Your task to perform on an android device: open app "Calculator" Image 0: 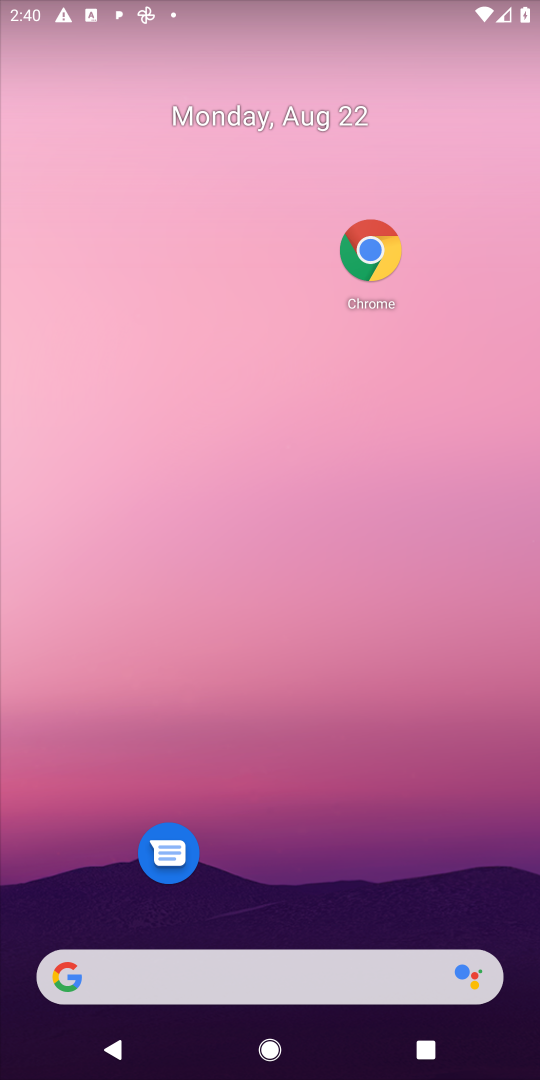
Step 0: drag from (311, 910) to (206, 138)
Your task to perform on an android device: open app "Calculator" Image 1: 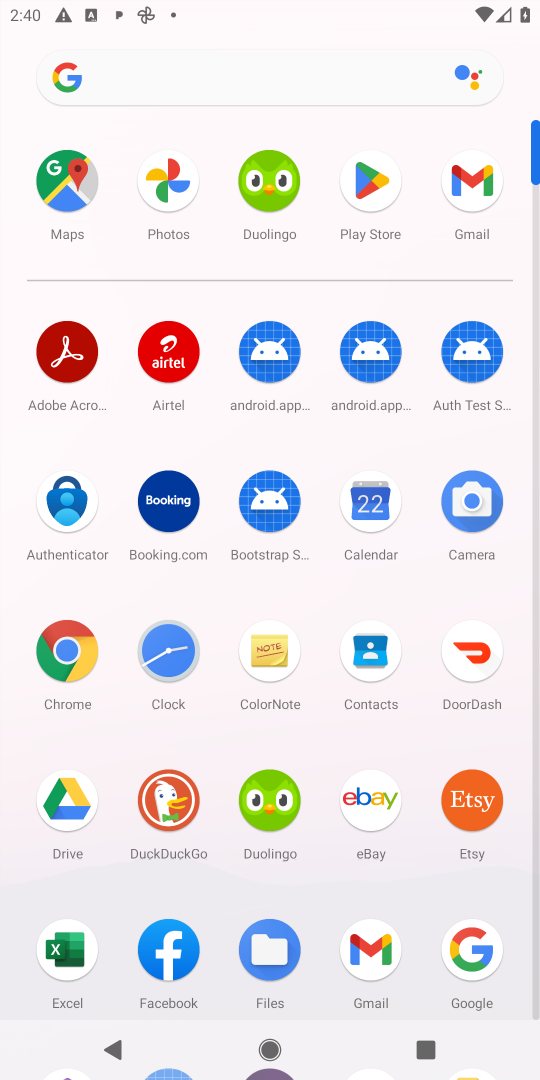
Step 1: click (352, 166)
Your task to perform on an android device: open app "Calculator" Image 2: 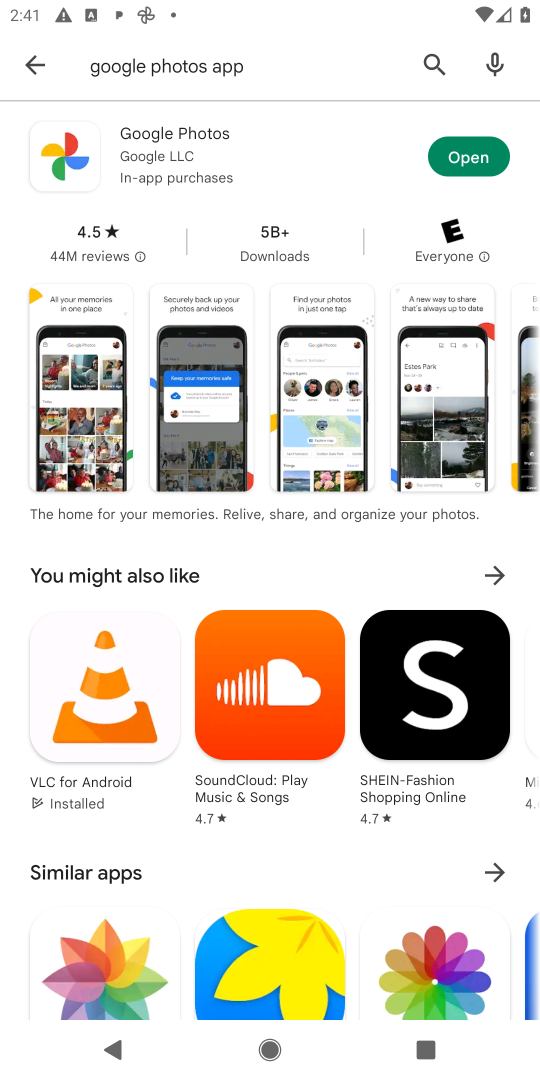
Step 2: click (41, 47)
Your task to perform on an android device: open app "Calculator" Image 3: 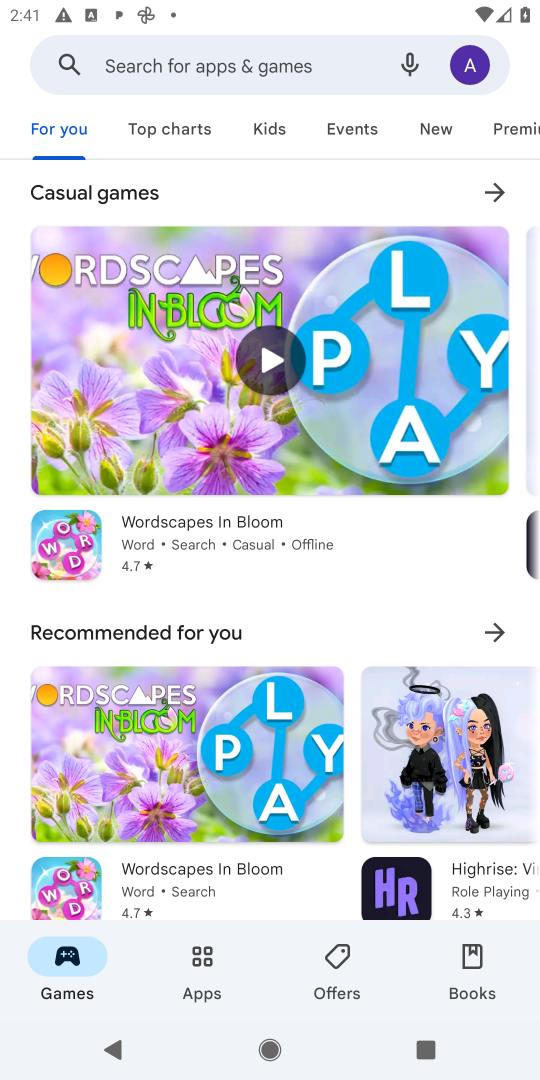
Step 3: click (218, 63)
Your task to perform on an android device: open app "Calculator" Image 4: 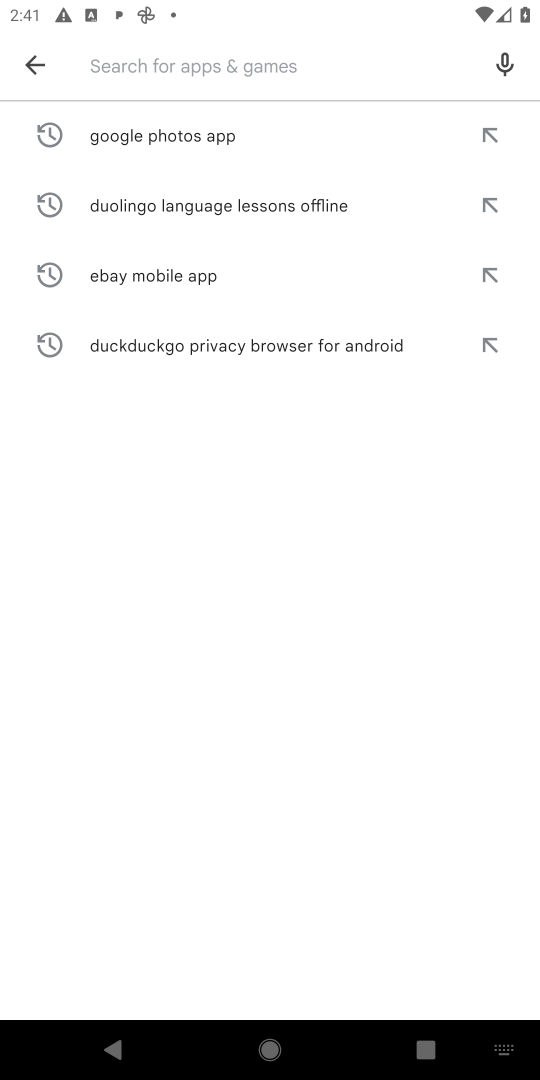
Step 4: type "Calculator "
Your task to perform on an android device: open app "Calculator" Image 5: 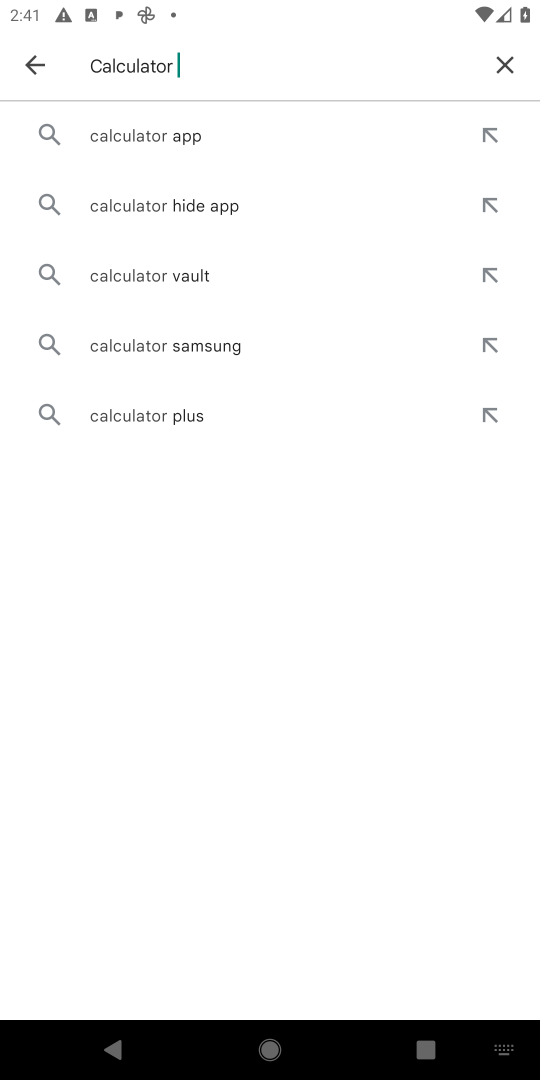
Step 5: click (154, 113)
Your task to perform on an android device: open app "Calculator" Image 6: 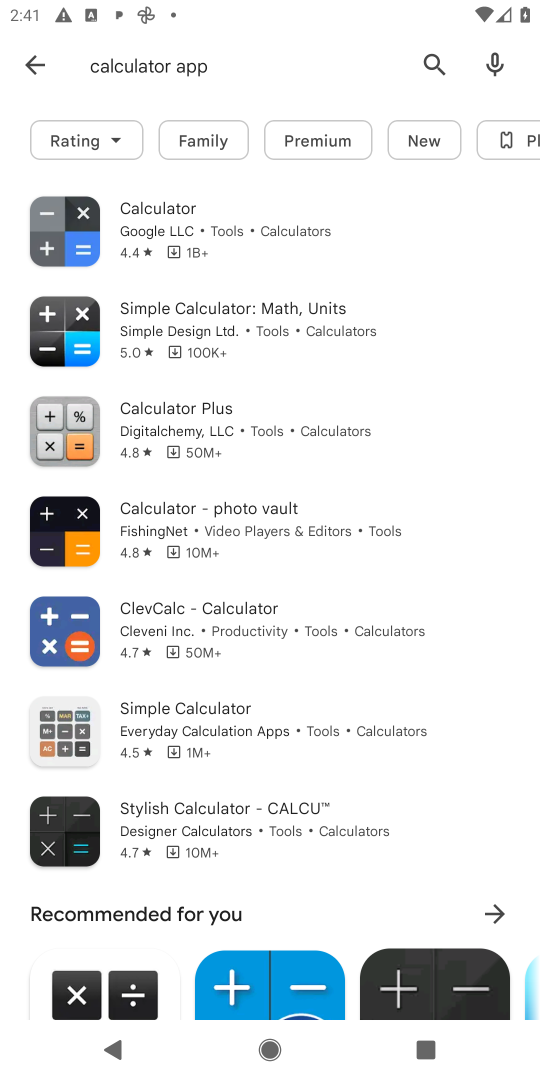
Step 6: click (181, 203)
Your task to perform on an android device: open app "Calculator" Image 7: 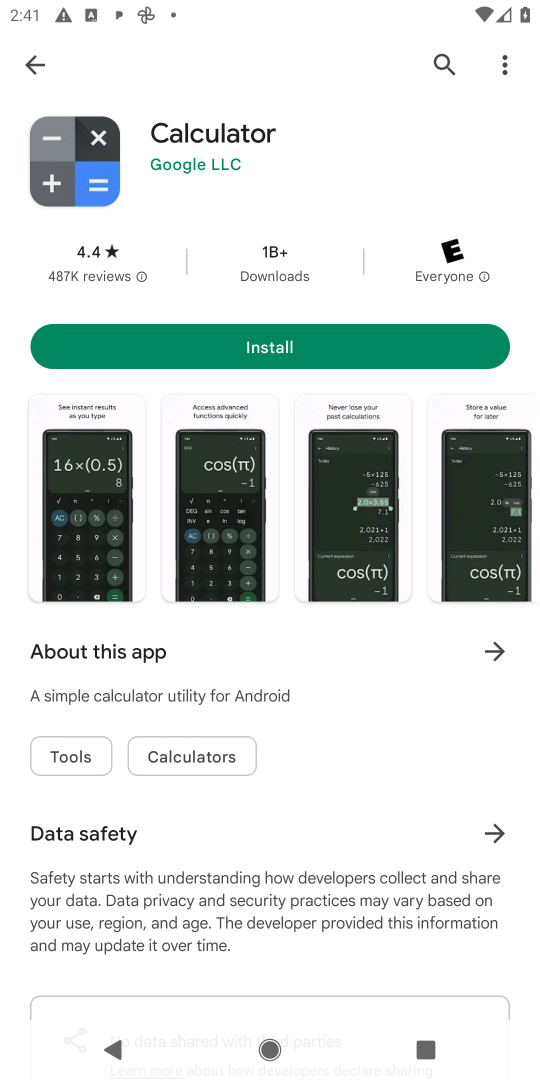
Step 7: click (247, 325)
Your task to perform on an android device: open app "Calculator" Image 8: 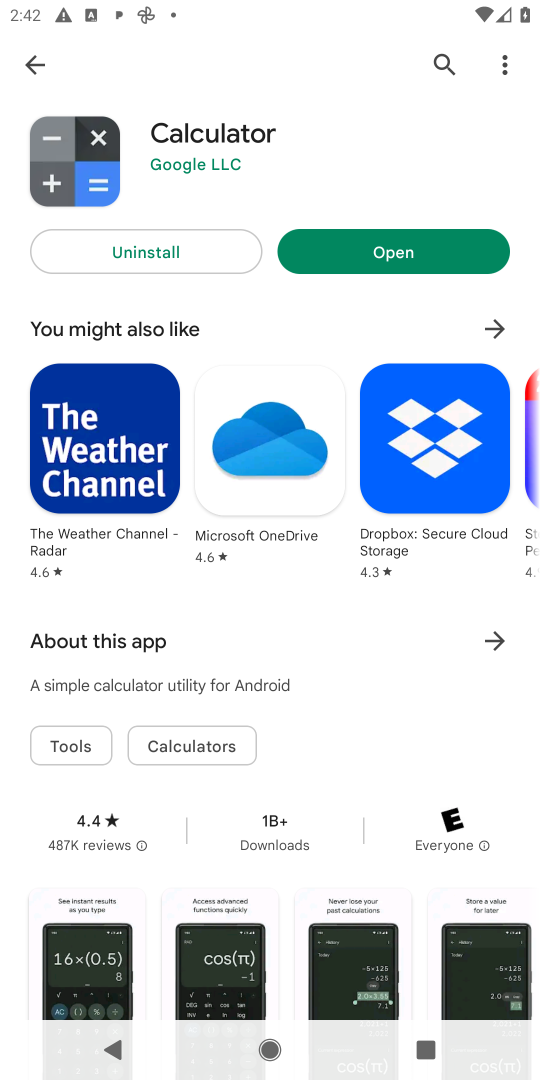
Step 8: click (358, 258)
Your task to perform on an android device: open app "Calculator" Image 9: 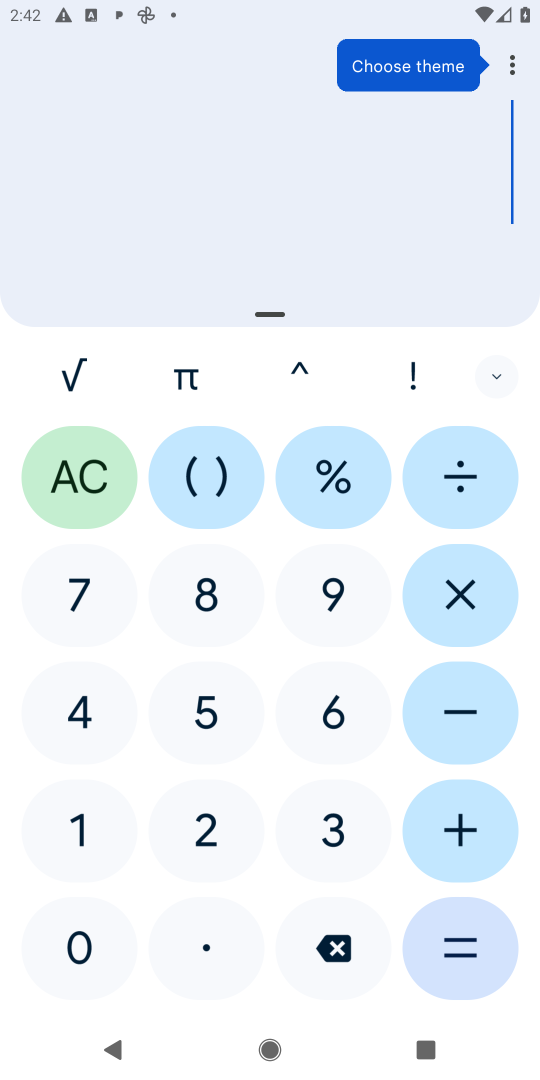
Step 9: task complete